Your task to perform on an android device: Show me the alarms in the clock app Image 0: 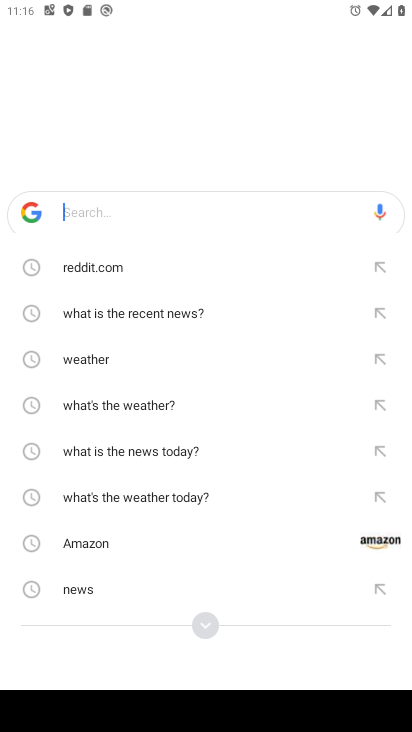
Step 0: press home button
Your task to perform on an android device: Show me the alarms in the clock app Image 1: 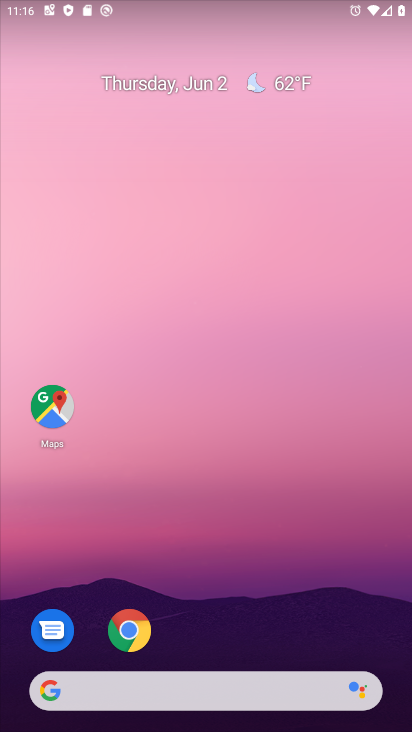
Step 1: drag from (185, 649) to (214, 153)
Your task to perform on an android device: Show me the alarms in the clock app Image 2: 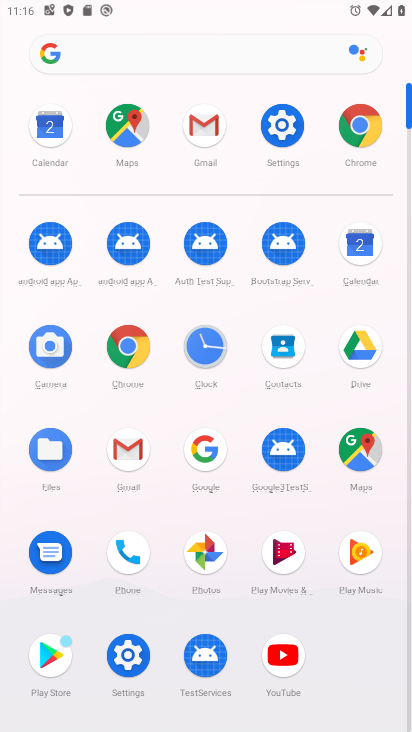
Step 2: click (207, 347)
Your task to perform on an android device: Show me the alarms in the clock app Image 3: 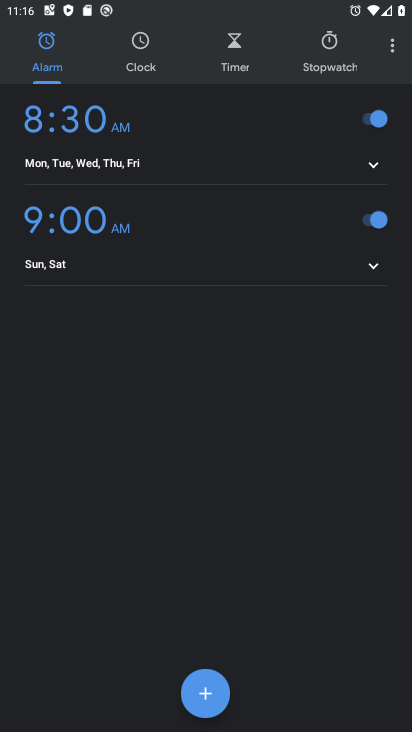
Step 3: task complete